Your task to perform on an android device: turn on data saver in the chrome app Image 0: 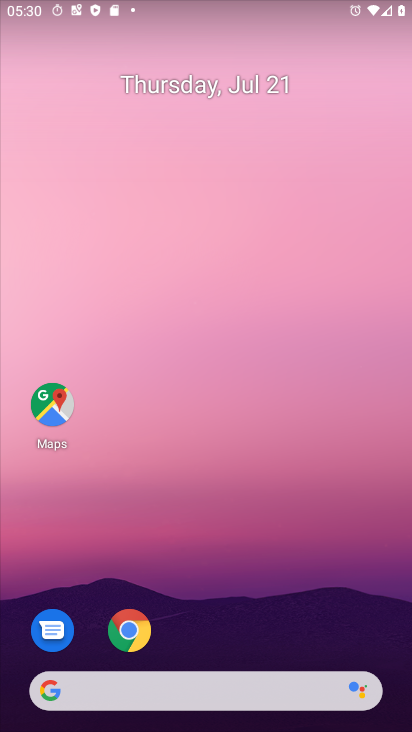
Step 0: click (128, 629)
Your task to perform on an android device: turn on data saver in the chrome app Image 1: 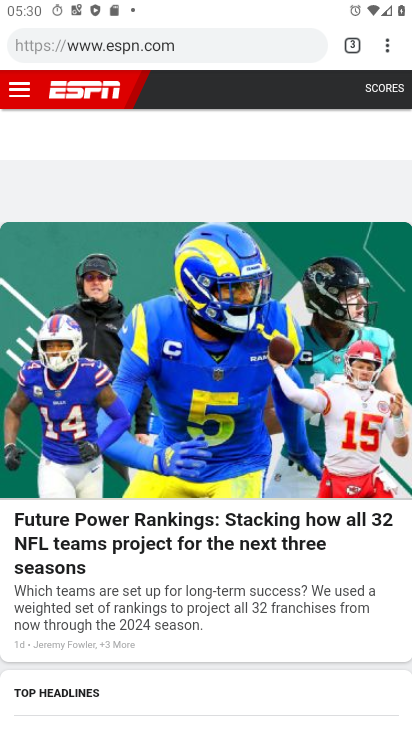
Step 1: click (388, 45)
Your task to perform on an android device: turn on data saver in the chrome app Image 2: 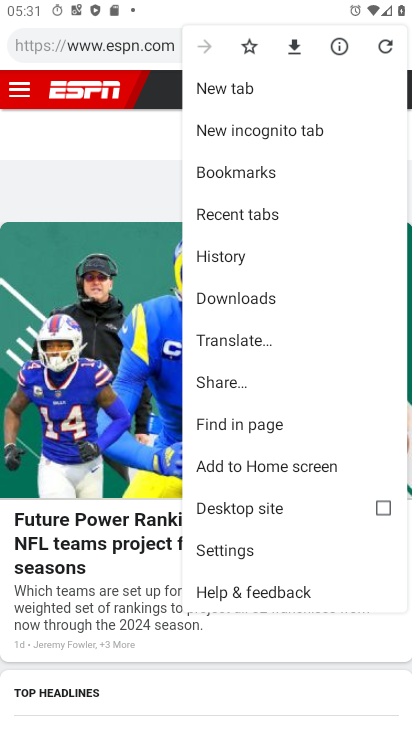
Step 2: click (227, 551)
Your task to perform on an android device: turn on data saver in the chrome app Image 3: 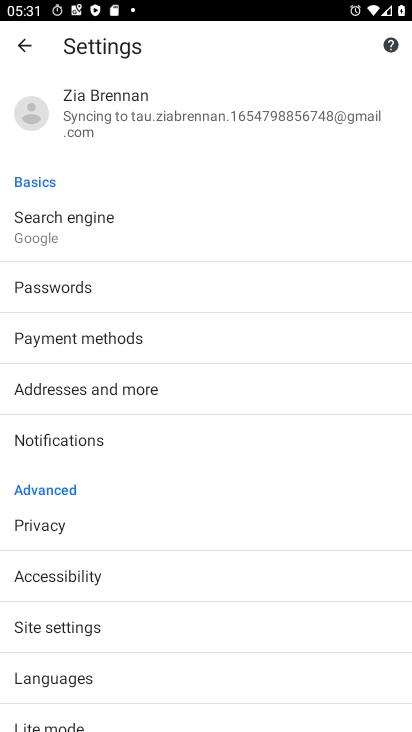
Step 3: click (52, 726)
Your task to perform on an android device: turn on data saver in the chrome app Image 4: 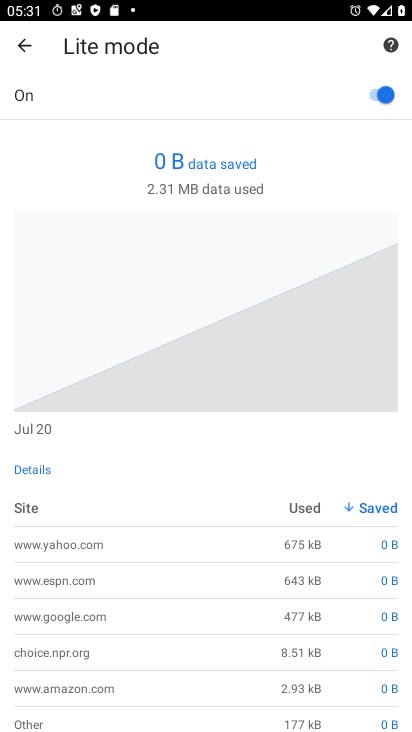
Step 4: task complete